Your task to perform on an android device: What's on my calendar tomorrow? Image 0: 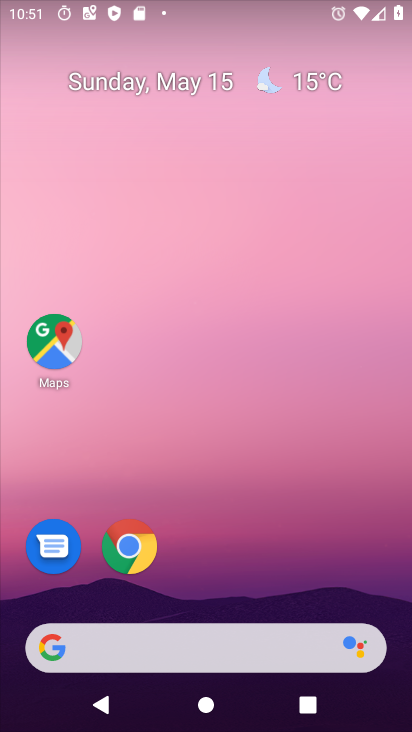
Step 0: drag from (386, 661) to (263, 196)
Your task to perform on an android device: What's on my calendar tomorrow? Image 1: 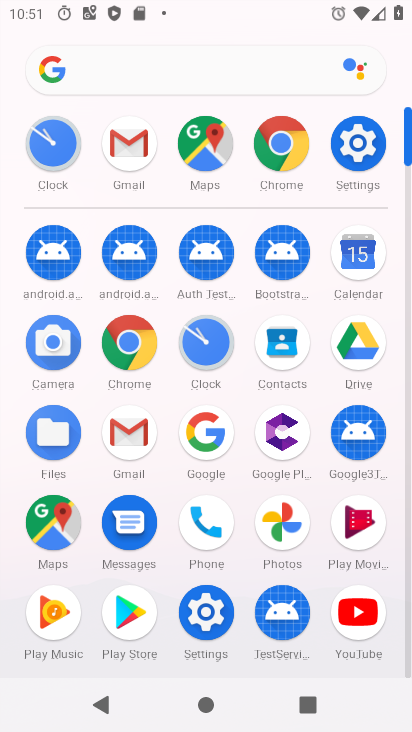
Step 1: click (363, 264)
Your task to perform on an android device: What's on my calendar tomorrow? Image 2: 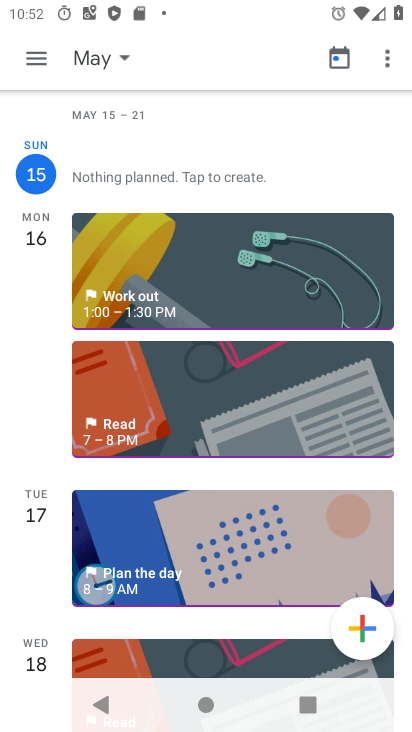
Step 2: click (165, 570)
Your task to perform on an android device: What's on my calendar tomorrow? Image 3: 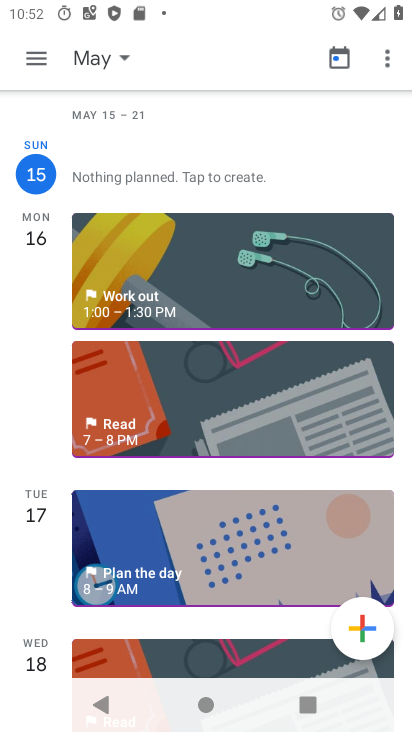
Step 3: task complete